Your task to perform on an android device: delete the emails in spam in the gmail app Image 0: 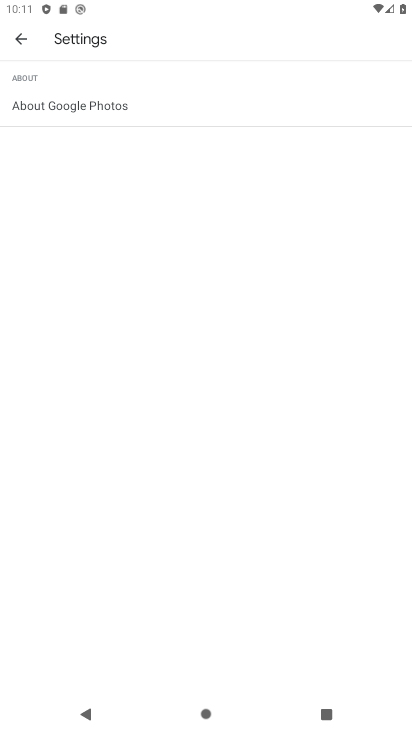
Step 0: press home button
Your task to perform on an android device: delete the emails in spam in the gmail app Image 1: 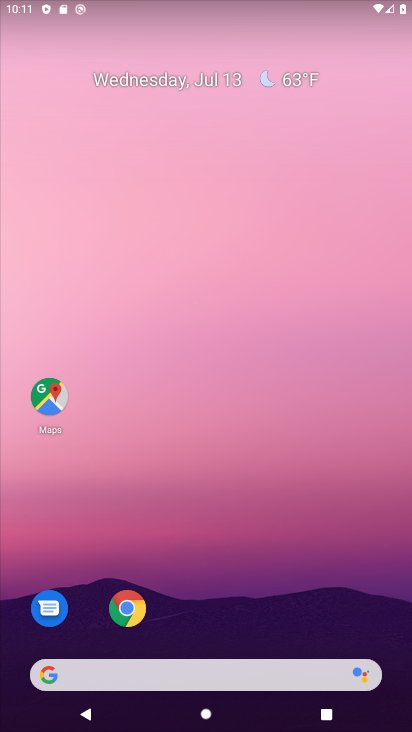
Step 1: drag from (305, 484) to (309, 29)
Your task to perform on an android device: delete the emails in spam in the gmail app Image 2: 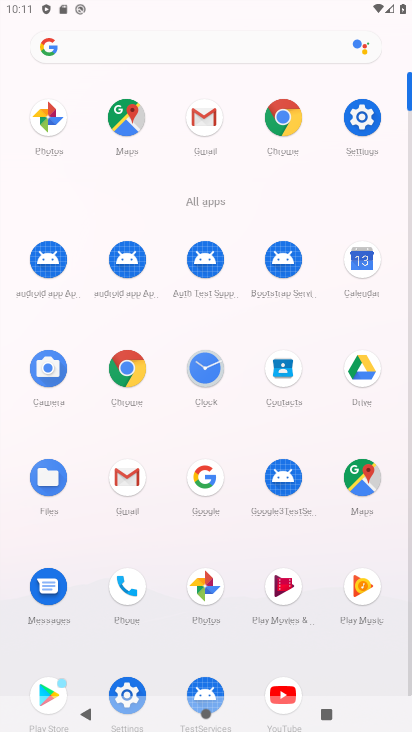
Step 2: click (127, 480)
Your task to perform on an android device: delete the emails in spam in the gmail app Image 3: 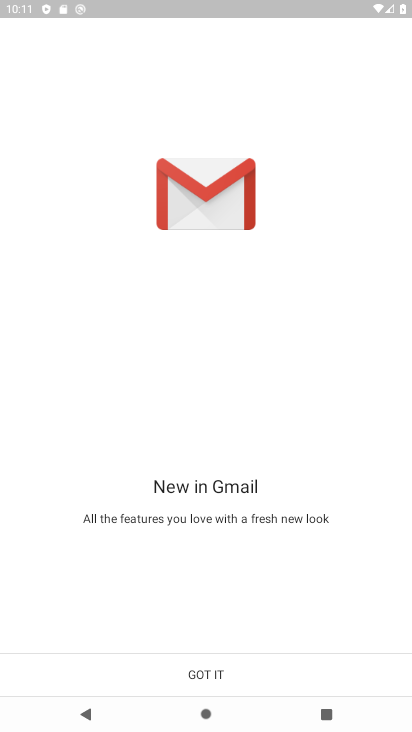
Step 3: click (227, 664)
Your task to perform on an android device: delete the emails in spam in the gmail app Image 4: 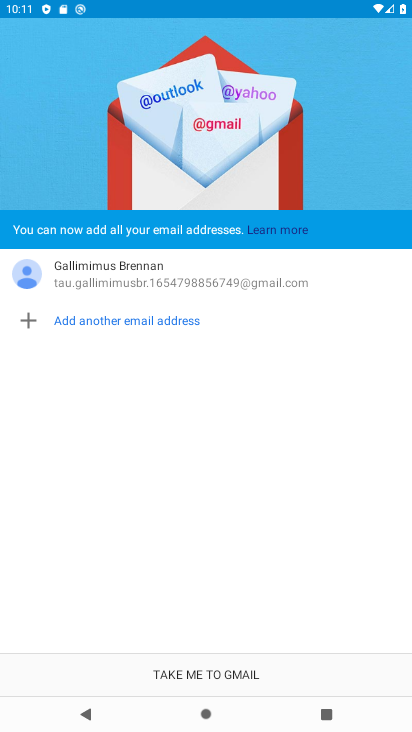
Step 4: click (227, 664)
Your task to perform on an android device: delete the emails in spam in the gmail app Image 5: 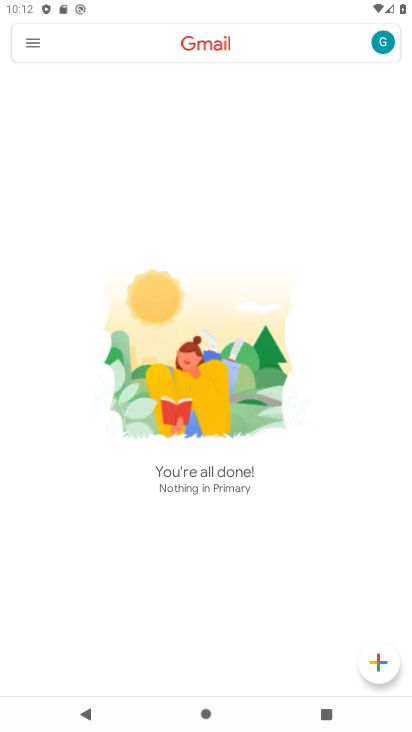
Step 5: click (20, 42)
Your task to perform on an android device: delete the emails in spam in the gmail app Image 6: 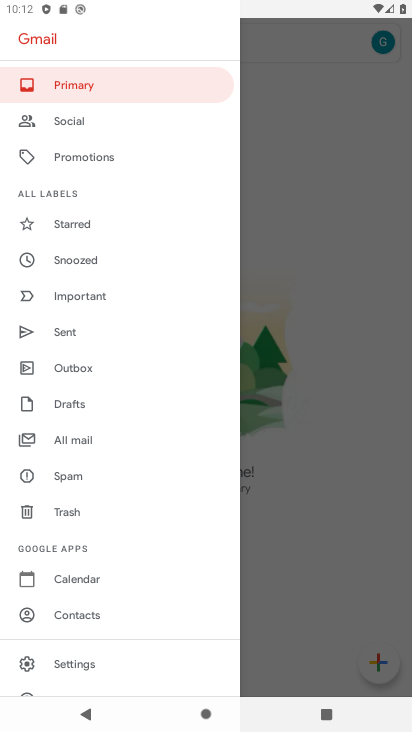
Step 6: click (73, 472)
Your task to perform on an android device: delete the emails in spam in the gmail app Image 7: 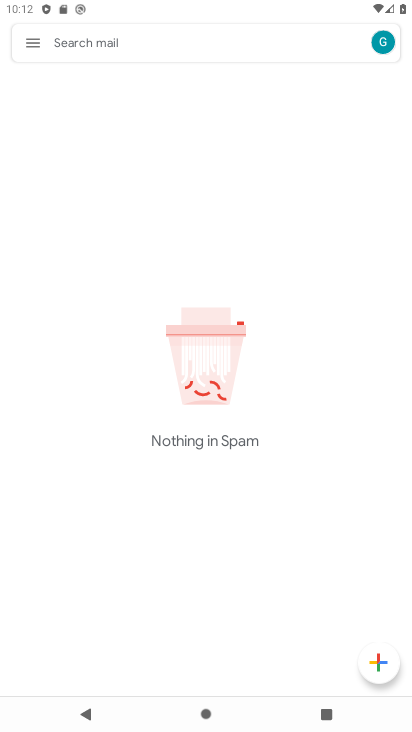
Step 7: task complete